Your task to perform on an android device: toggle show notifications on the lock screen Image 0: 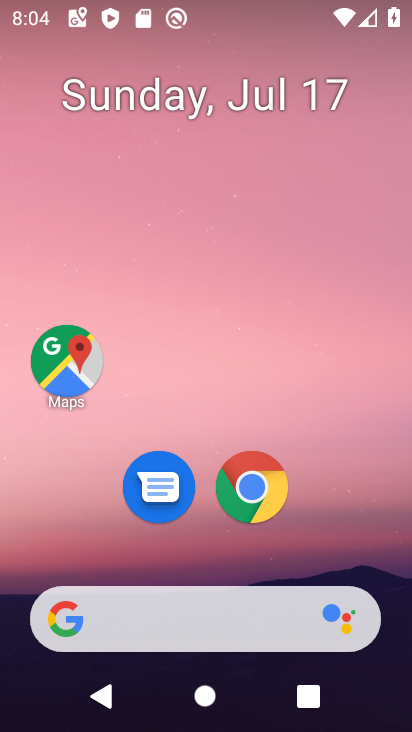
Step 0: drag from (66, 558) to (185, 1)
Your task to perform on an android device: toggle show notifications on the lock screen Image 1: 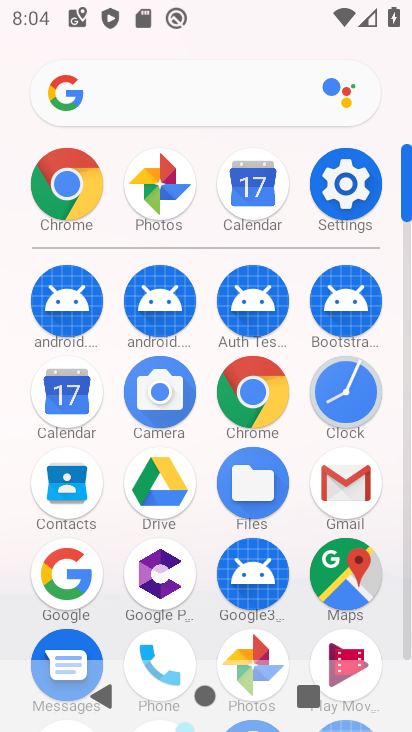
Step 1: click (347, 180)
Your task to perform on an android device: toggle show notifications on the lock screen Image 2: 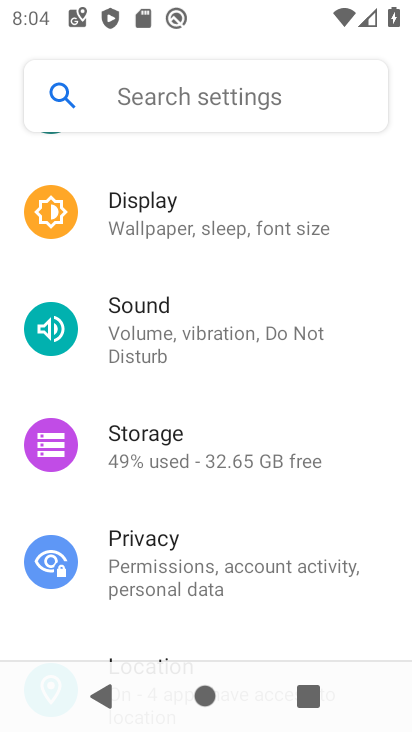
Step 2: drag from (226, 236) to (203, 666)
Your task to perform on an android device: toggle show notifications on the lock screen Image 3: 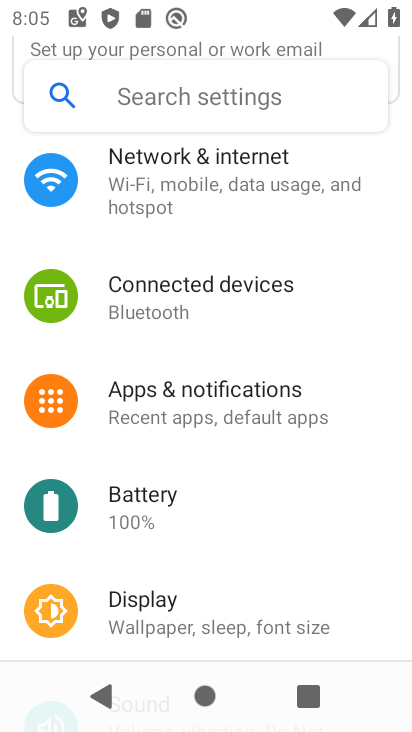
Step 3: click (146, 389)
Your task to perform on an android device: toggle show notifications on the lock screen Image 4: 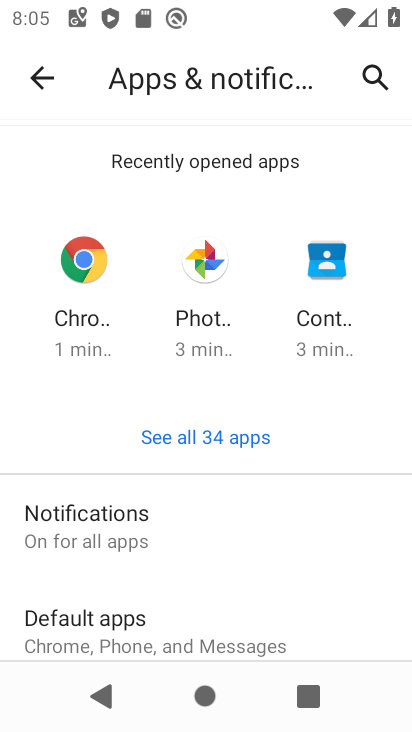
Step 4: click (151, 515)
Your task to perform on an android device: toggle show notifications on the lock screen Image 5: 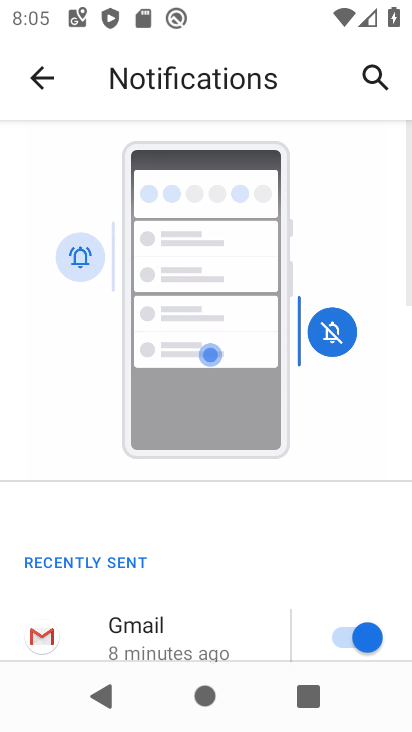
Step 5: drag from (153, 649) to (246, 160)
Your task to perform on an android device: toggle show notifications on the lock screen Image 6: 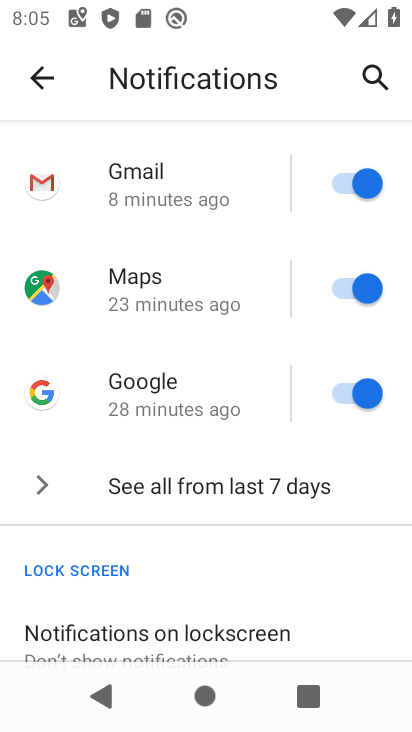
Step 6: click (169, 628)
Your task to perform on an android device: toggle show notifications on the lock screen Image 7: 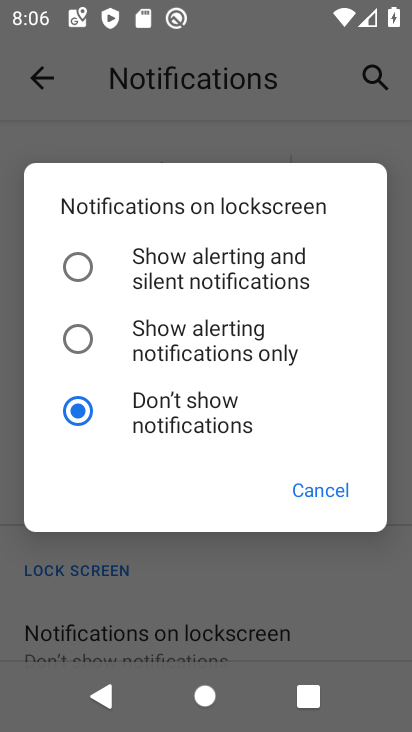
Step 7: click (76, 240)
Your task to perform on an android device: toggle show notifications on the lock screen Image 8: 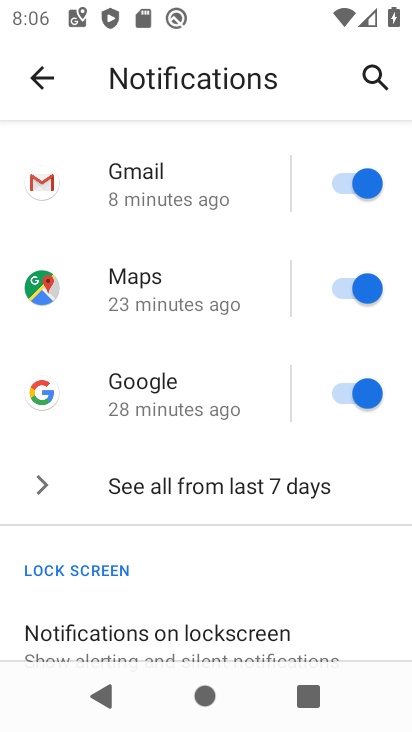
Step 8: task complete